Your task to perform on an android device: change alarm snooze length Image 0: 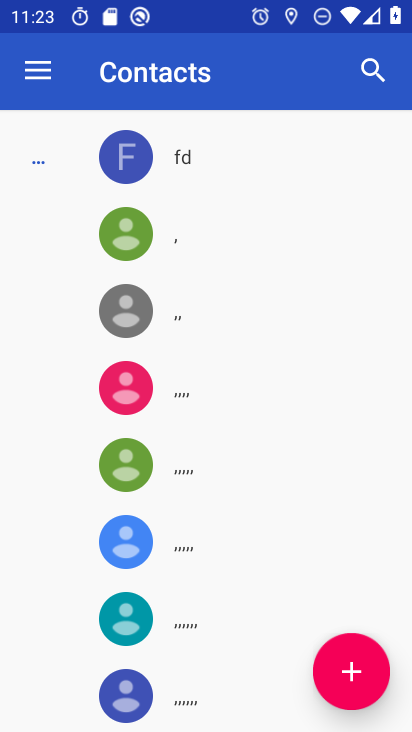
Step 0: drag from (363, 607) to (360, 562)
Your task to perform on an android device: change alarm snooze length Image 1: 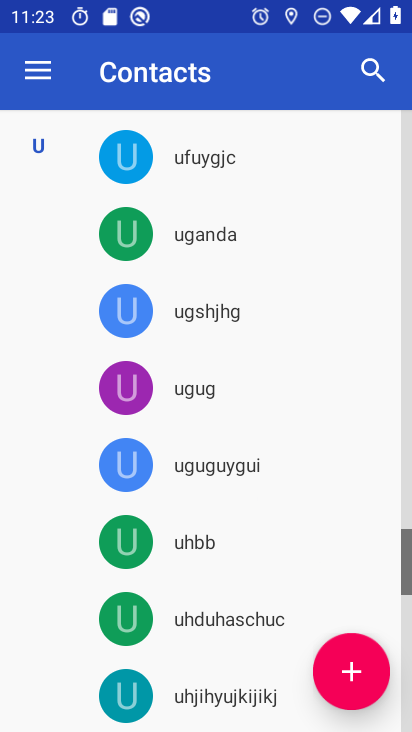
Step 1: press home button
Your task to perform on an android device: change alarm snooze length Image 2: 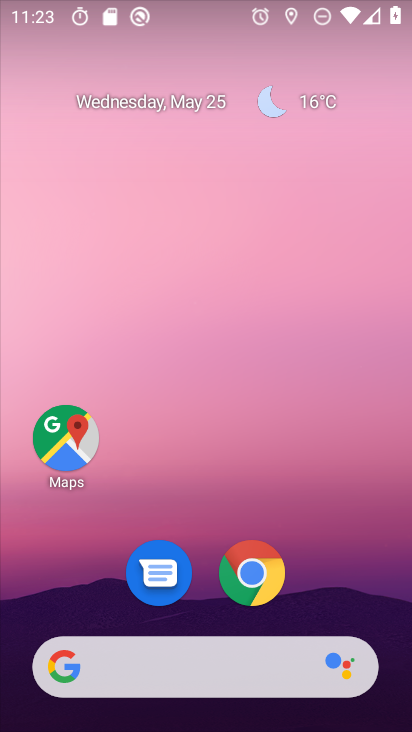
Step 2: drag from (315, 617) to (283, 3)
Your task to perform on an android device: change alarm snooze length Image 3: 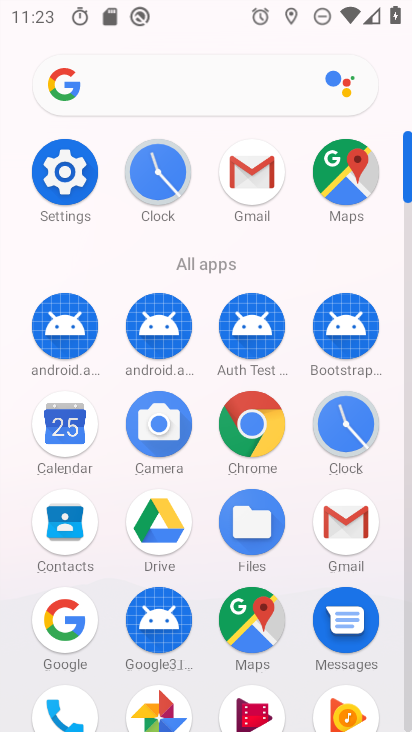
Step 3: click (152, 180)
Your task to perform on an android device: change alarm snooze length Image 4: 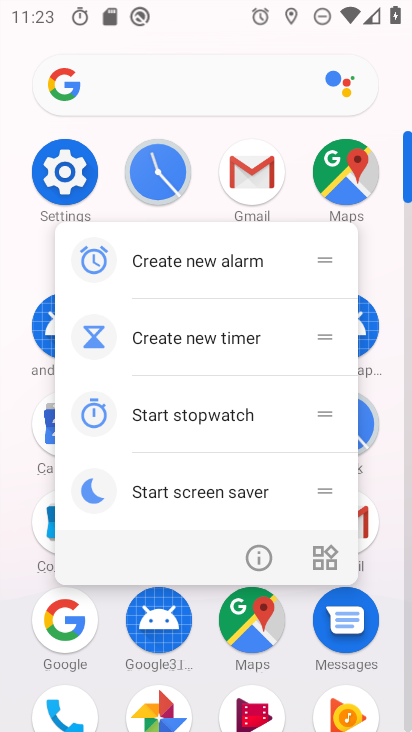
Step 4: click (152, 180)
Your task to perform on an android device: change alarm snooze length Image 5: 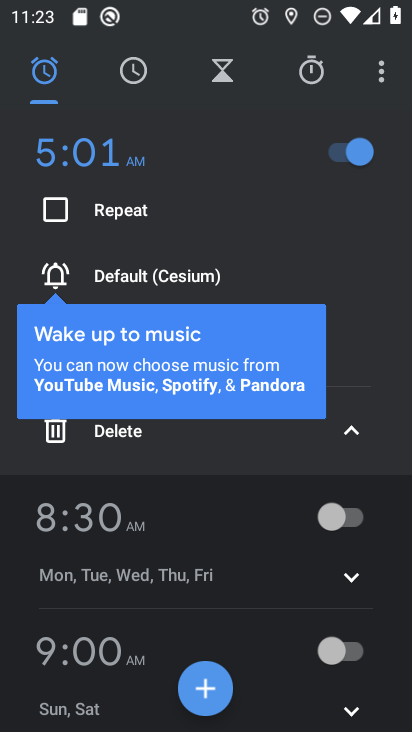
Step 5: click (383, 68)
Your task to perform on an android device: change alarm snooze length Image 6: 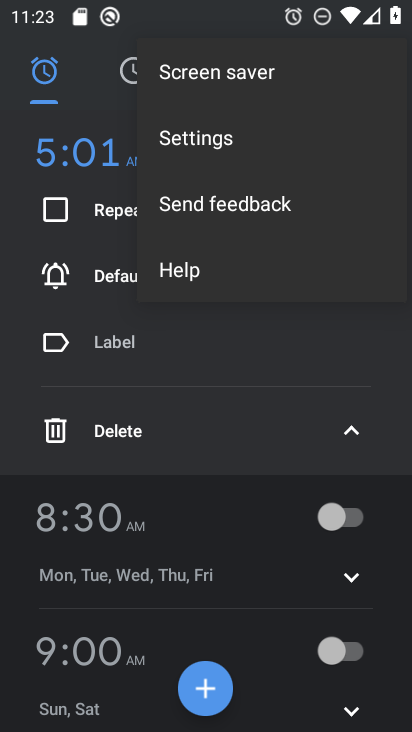
Step 6: click (220, 146)
Your task to perform on an android device: change alarm snooze length Image 7: 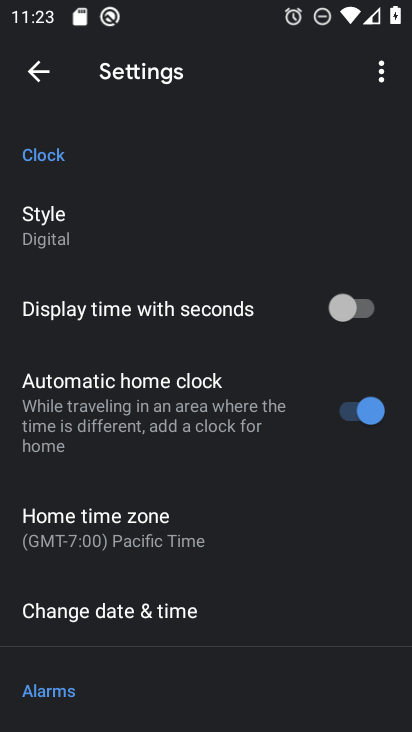
Step 7: drag from (150, 567) to (136, 285)
Your task to perform on an android device: change alarm snooze length Image 8: 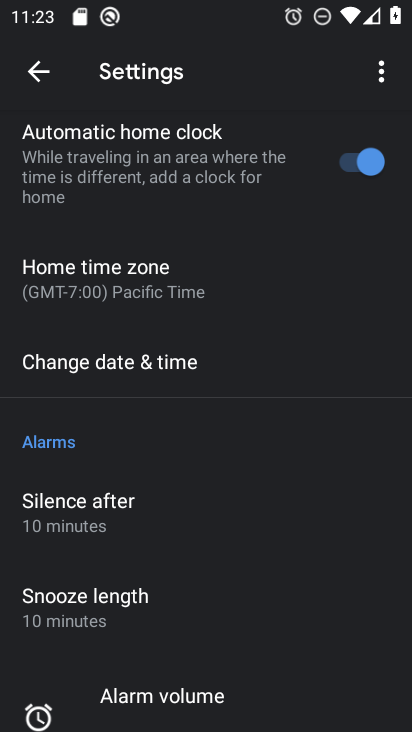
Step 8: click (71, 594)
Your task to perform on an android device: change alarm snooze length Image 9: 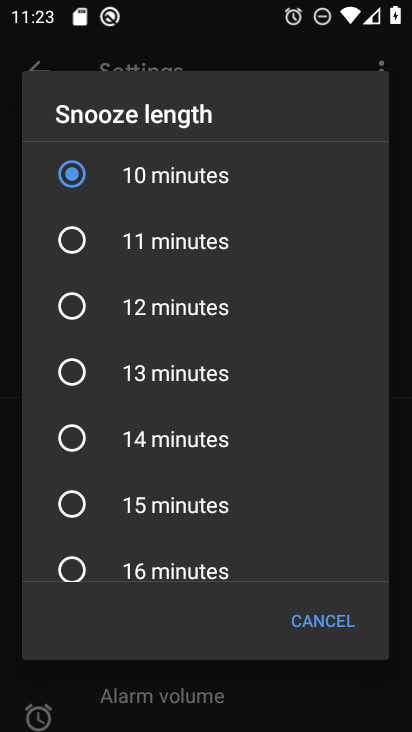
Step 9: click (70, 316)
Your task to perform on an android device: change alarm snooze length Image 10: 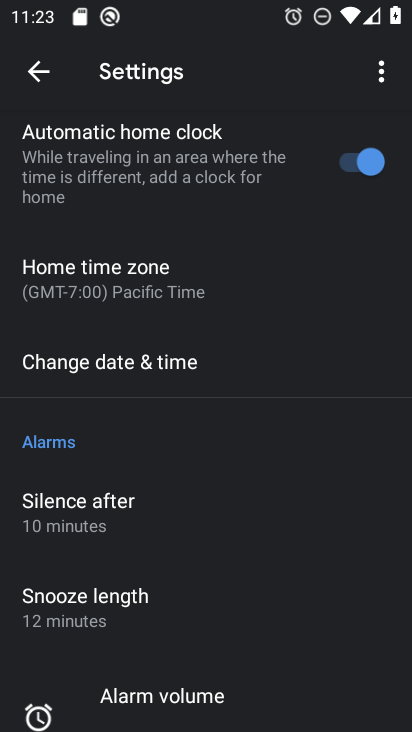
Step 10: click (87, 603)
Your task to perform on an android device: change alarm snooze length Image 11: 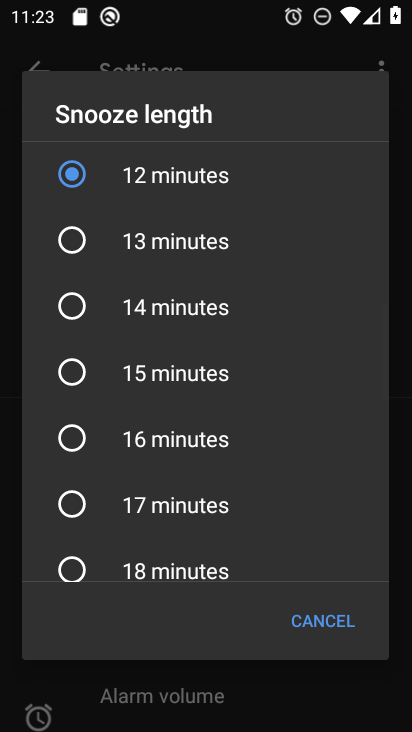
Step 11: click (84, 372)
Your task to perform on an android device: change alarm snooze length Image 12: 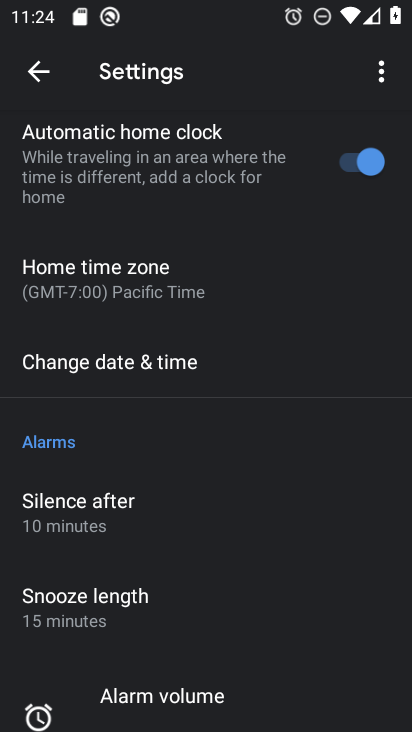
Step 12: task complete